Your task to perform on an android device: What's on my calendar today? Image 0: 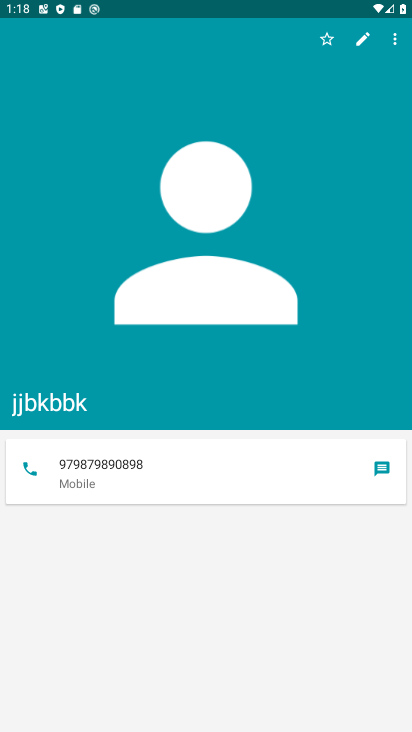
Step 0: press home button
Your task to perform on an android device: What's on my calendar today? Image 1: 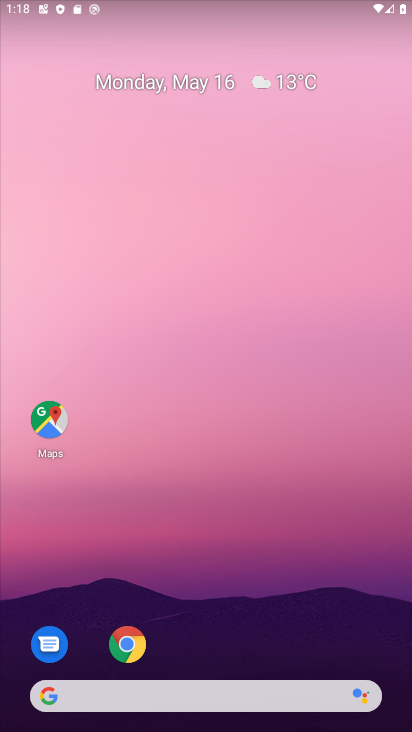
Step 1: drag from (253, 622) to (277, 173)
Your task to perform on an android device: What's on my calendar today? Image 2: 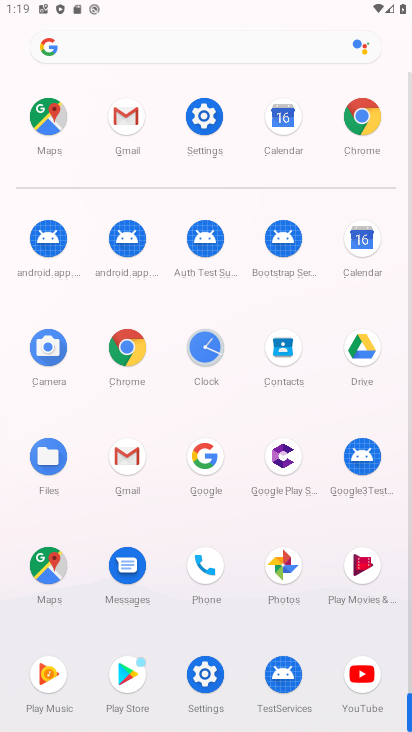
Step 2: click (216, 130)
Your task to perform on an android device: What's on my calendar today? Image 3: 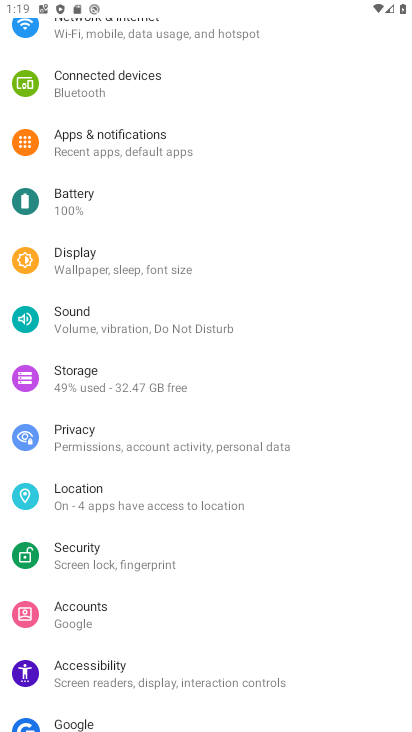
Step 3: drag from (176, 520) to (227, 690)
Your task to perform on an android device: What's on my calendar today? Image 4: 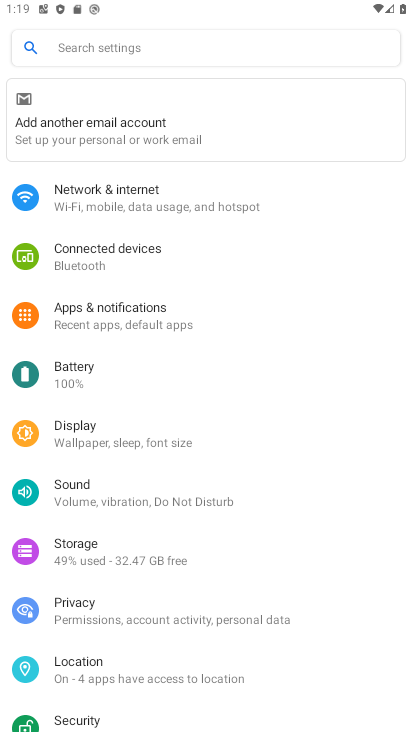
Step 4: press home button
Your task to perform on an android device: What's on my calendar today? Image 5: 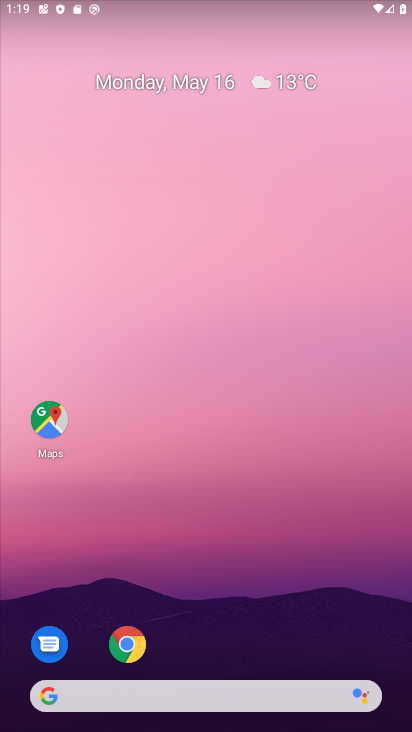
Step 5: drag from (205, 628) to (258, 101)
Your task to perform on an android device: What's on my calendar today? Image 6: 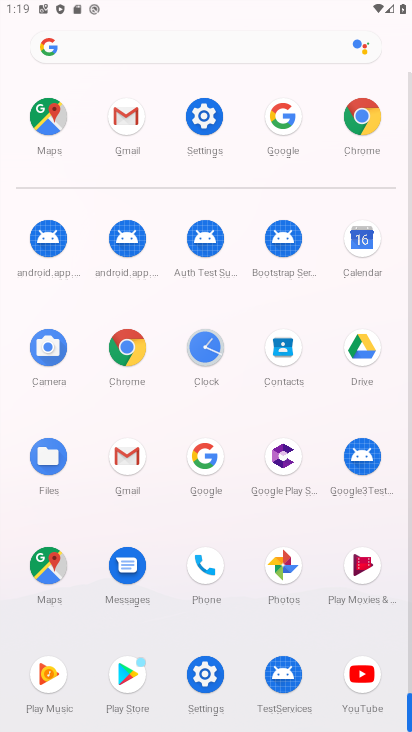
Step 6: drag from (208, 484) to (268, 252)
Your task to perform on an android device: What's on my calendar today? Image 7: 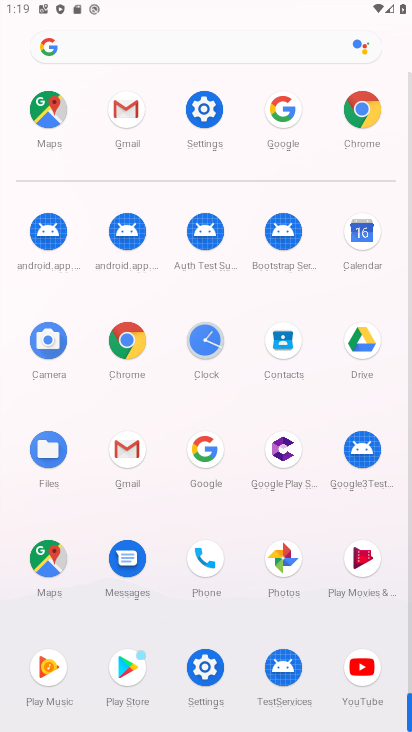
Step 7: click (350, 223)
Your task to perform on an android device: What's on my calendar today? Image 8: 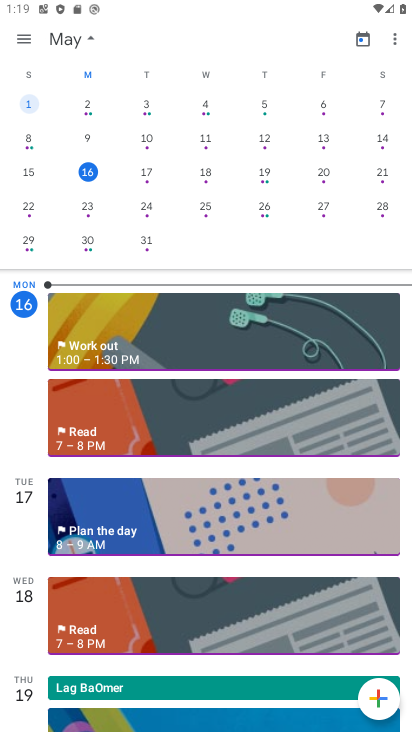
Step 8: click (87, 168)
Your task to perform on an android device: What's on my calendar today? Image 9: 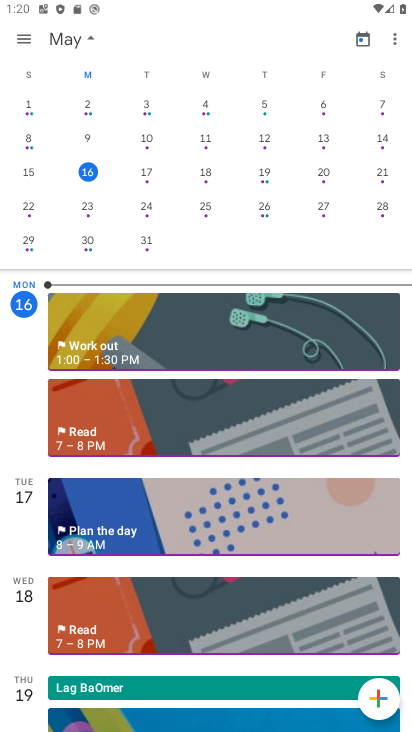
Step 9: task complete